Your task to perform on an android device: Go to network settings Image 0: 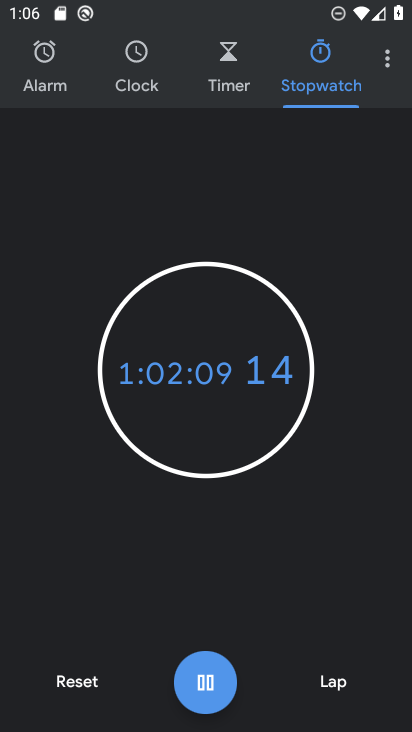
Step 0: press home button
Your task to perform on an android device: Go to network settings Image 1: 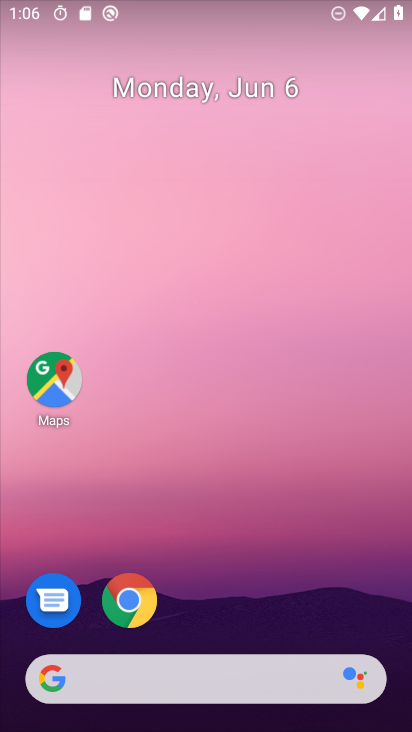
Step 1: drag from (241, 635) to (236, 148)
Your task to perform on an android device: Go to network settings Image 2: 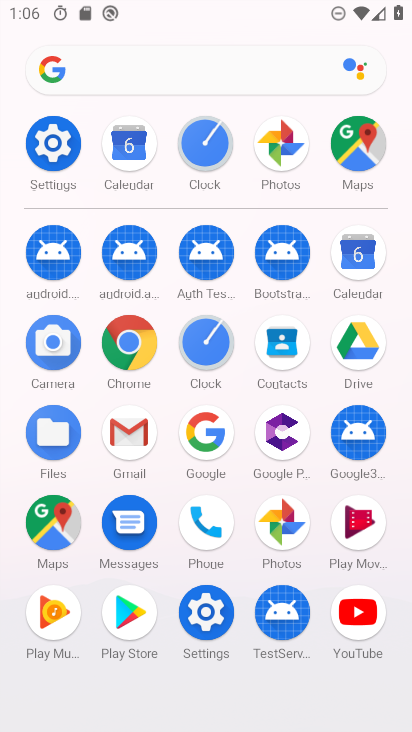
Step 2: click (76, 134)
Your task to perform on an android device: Go to network settings Image 3: 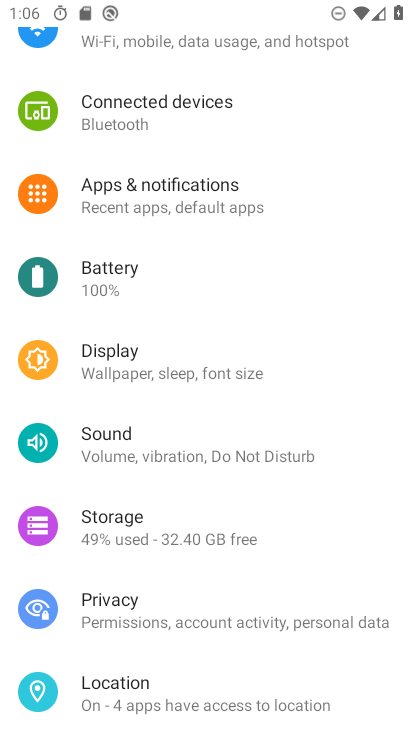
Step 3: drag from (225, 177) to (263, 542)
Your task to perform on an android device: Go to network settings Image 4: 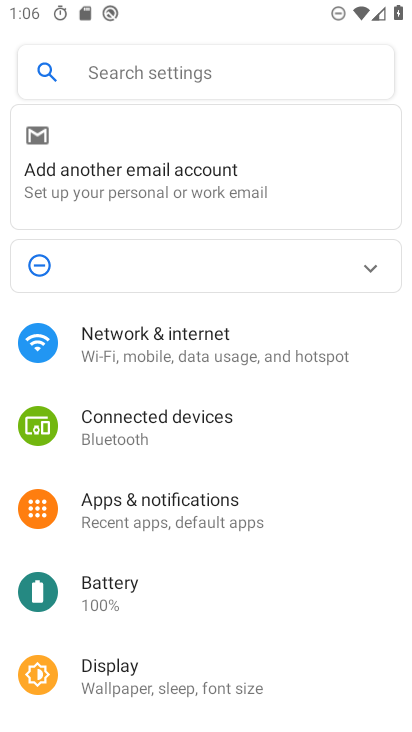
Step 4: click (229, 348)
Your task to perform on an android device: Go to network settings Image 5: 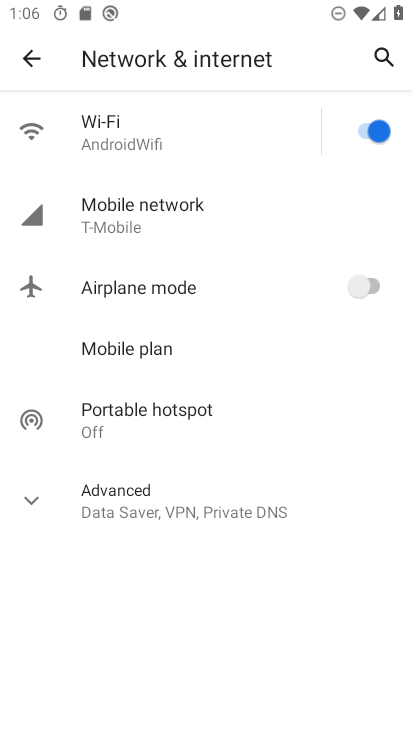
Step 5: click (169, 226)
Your task to perform on an android device: Go to network settings Image 6: 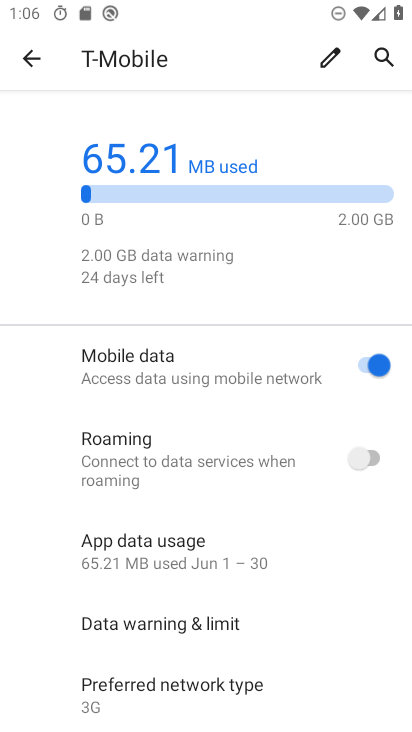
Step 6: task complete